Your task to perform on an android device: manage bookmarks in the chrome app Image 0: 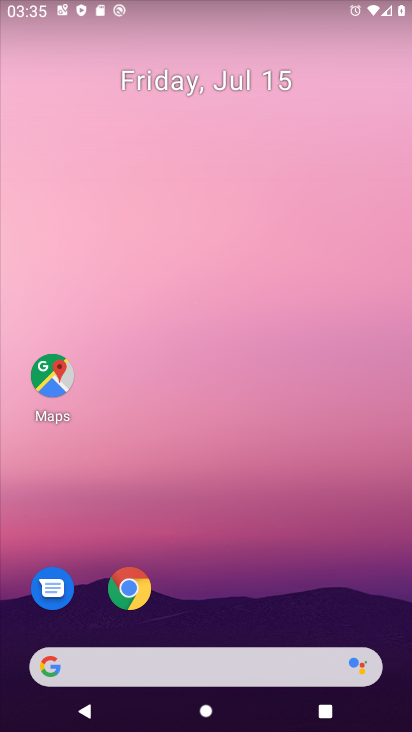
Step 0: click (129, 590)
Your task to perform on an android device: manage bookmarks in the chrome app Image 1: 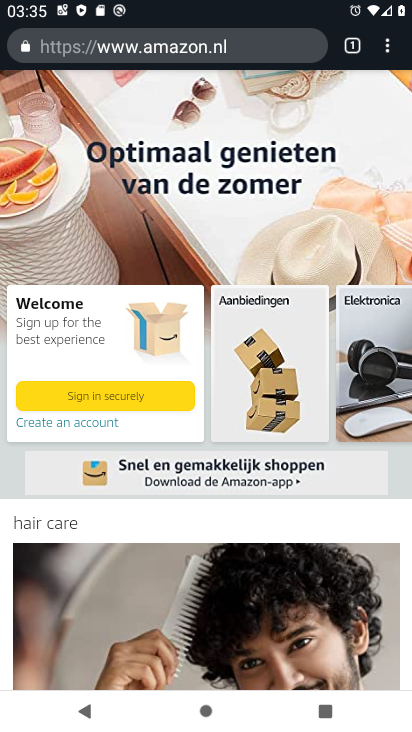
Step 1: click (389, 46)
Your task to perform on an android device: manage bookmarks in the chrome app Image 2: 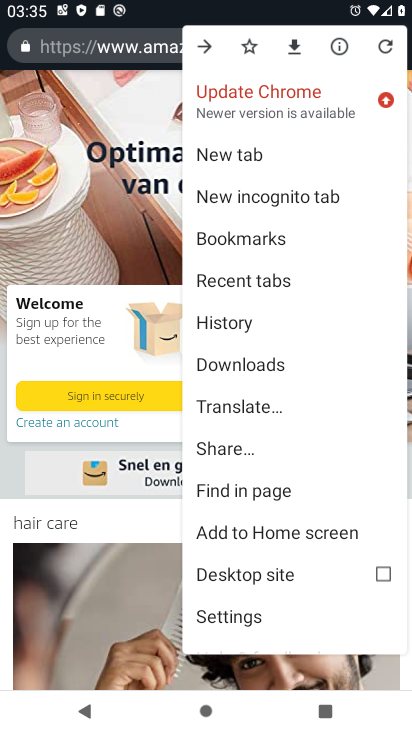
Step 2: click (273, 239)
Your task to perform on an android device: manage bookmarks in the chrome app Image 3: 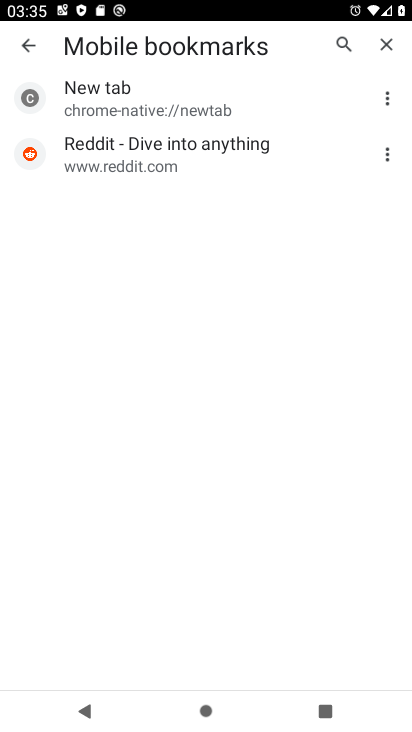
Step 3: click (385, 95)
Your task to perform on an android device: manage bookmarks in the chrome app Image 4: 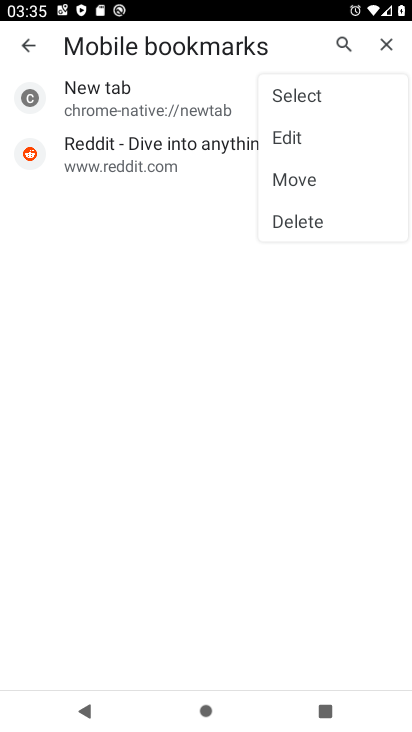
Step 4: click (306, 136)
Your task to perform on an android device: manage bookmarks in the chrome app Image 5: 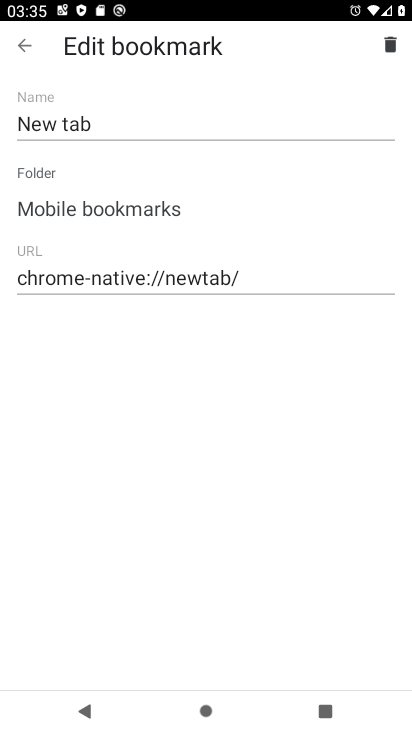
Step 5: click (397, 48)
Your task to perform on an android device: manage bookmarks in the chrome app Image 6: 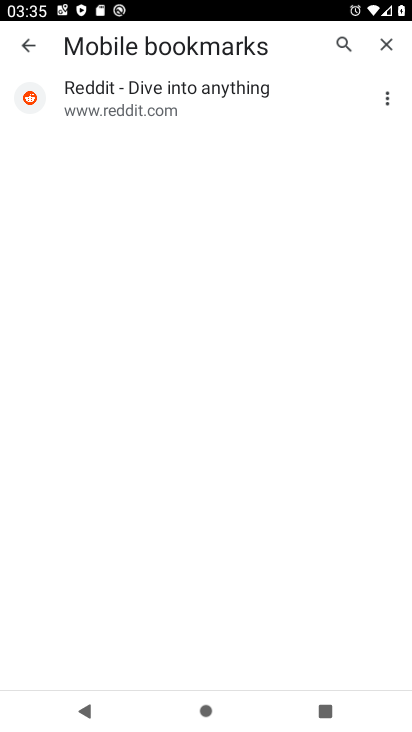
Step 6: task complete